Your task to perform on an android device: What's on my calendar tomorrow? Image 0: 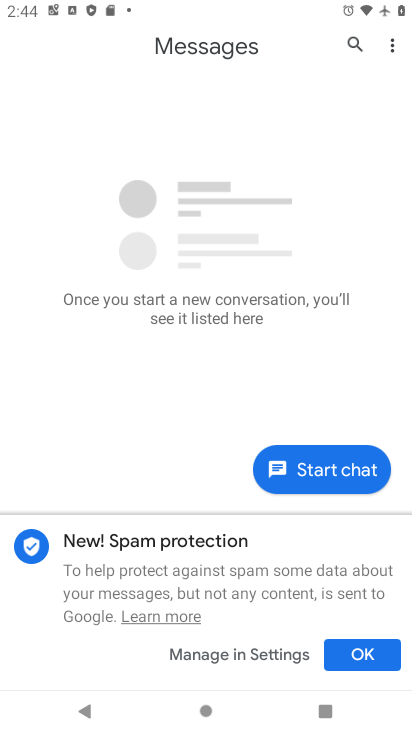
Step 0: press home button
Your task to perform on an android device: What's on my calendar tomorrow? Image 1: 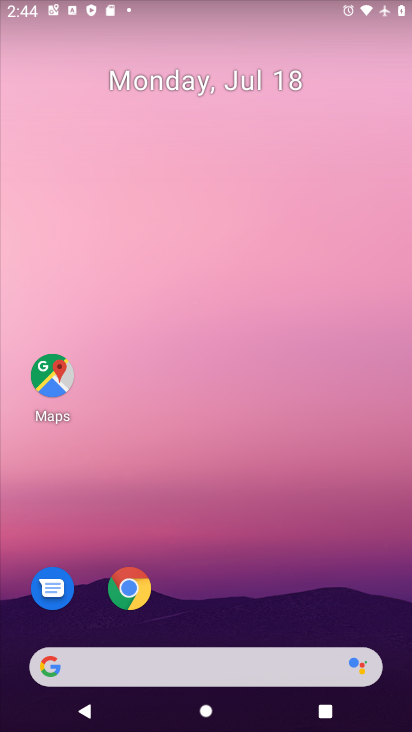
Step 1: drag from (225, 604) to (271, 155)
Your task to perform on an android device: What's on my calendar tomorrow? Image 2: 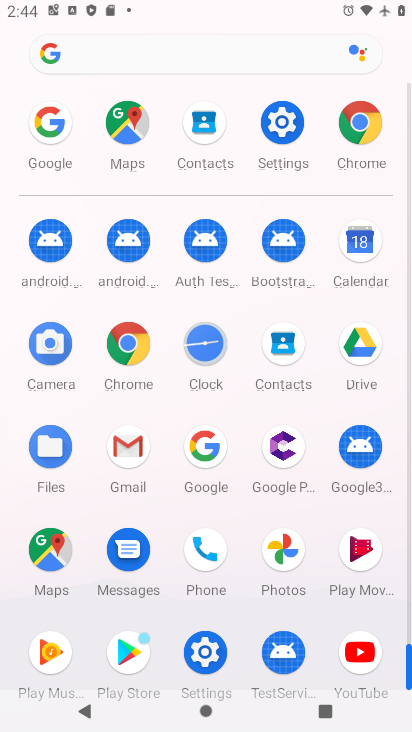
Step 2: click (358, 254)
Your task to perform on an android device: What's on my calendar tomorrow? Image 3: 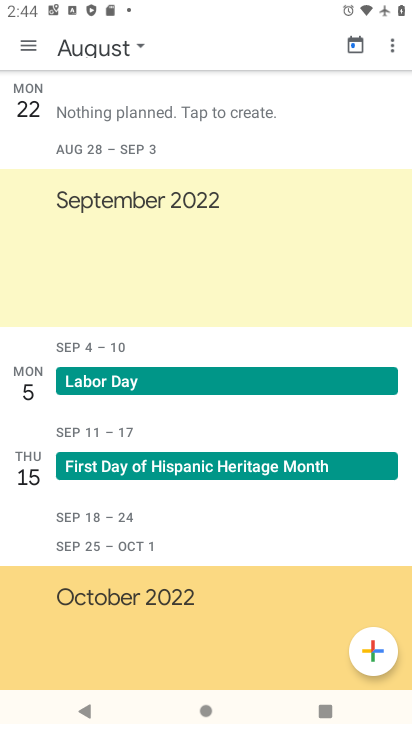
Step 3: click (140, 53)
Your task to perform on an android device: What's on my calendar tomorrow? Image 4: 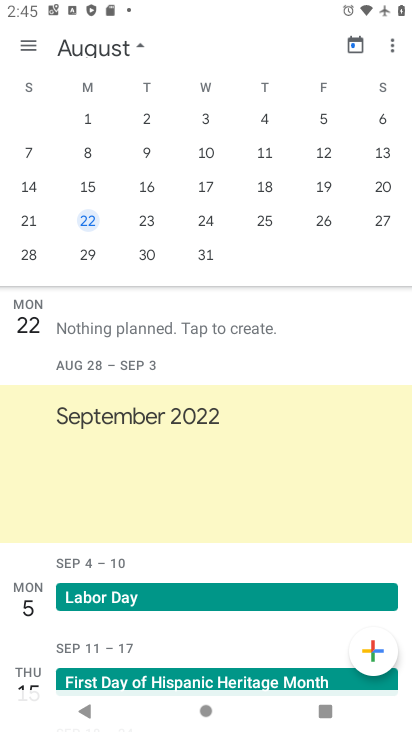
Step 4: drag from (68, 175) to (408, 232)
Your task to perform on an android device: What's on my calendar tomorrow? Image 5: 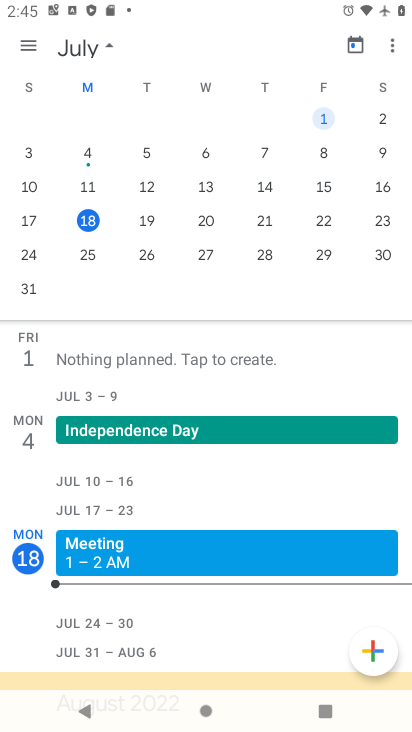
Step 5: click (143, 226)
Your task to perform on an android device: What's on my calendar tomorrow? Image 6: 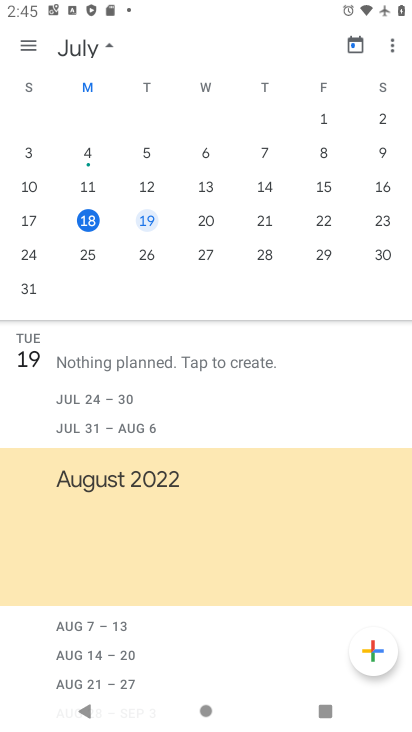
Step 6: task complete